Your task to perform on an android device: change notifications settings Image 0: 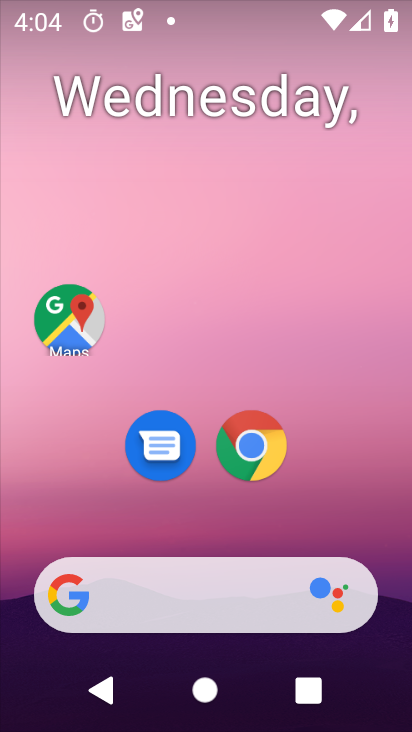
Step 0: drag from (240, 516) to (213, 2)
Your task to perform on an android device: change notifications settings Image 1: 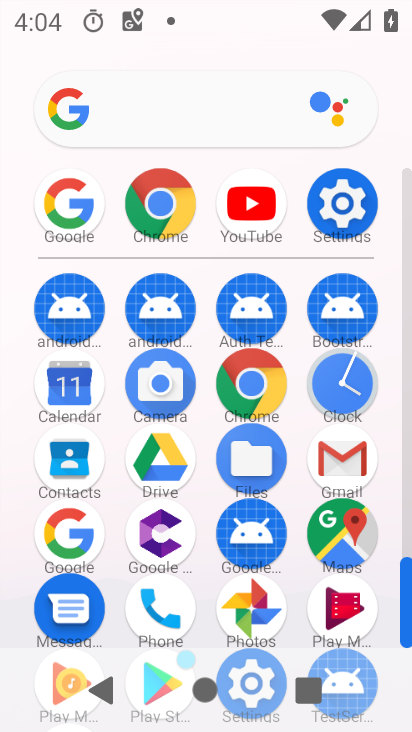
Step 1: click (339, 203)
Your task to perform on an android device: change notifications settings Image 2: 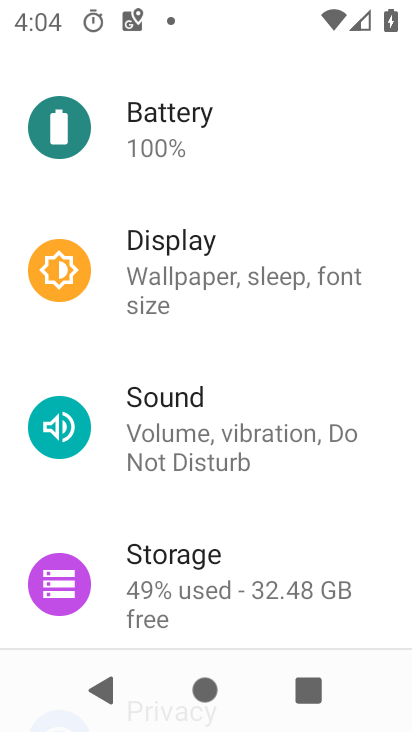
Step 2: drag from (193, 214) to (162, 627)
Your task to perform on an android device: change notifications settings Image 3: 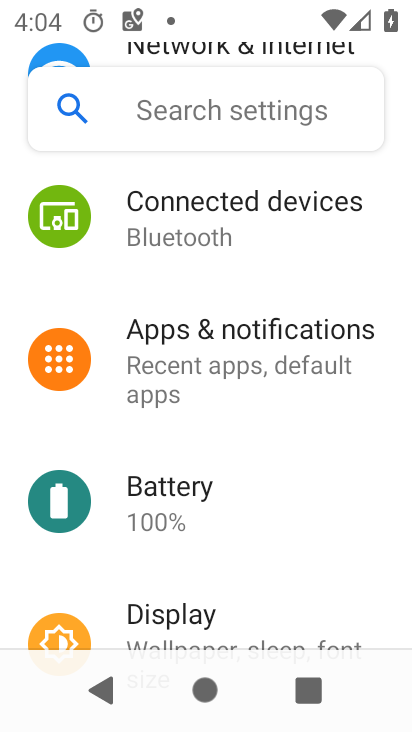
Step 3: click (210, 347)
Your task to perform on an android device: change notifications settings Image 4: 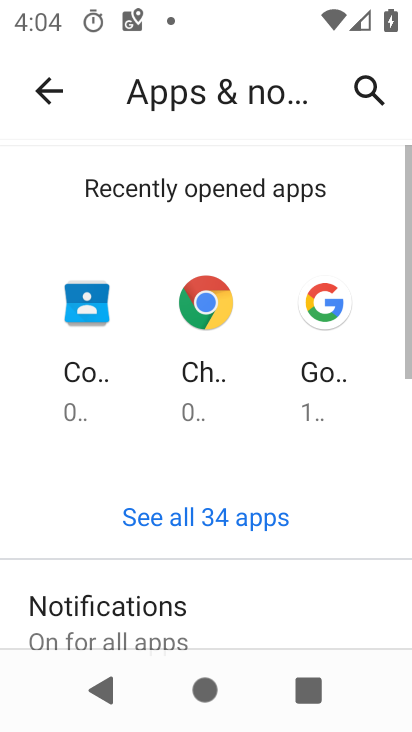
Step 4: click (152, 588)
Your task to perform on an android device: change notifications settings Image 5: 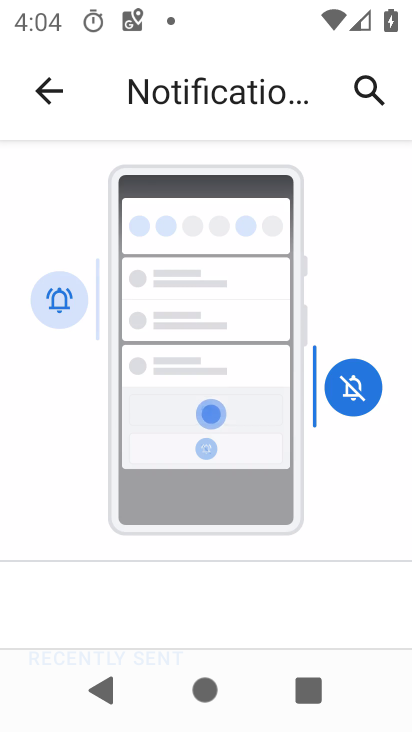
Step 5: drag from (242, 563) to (280, 81)
Your task to perform on an android device: change notifications settings Image 6: 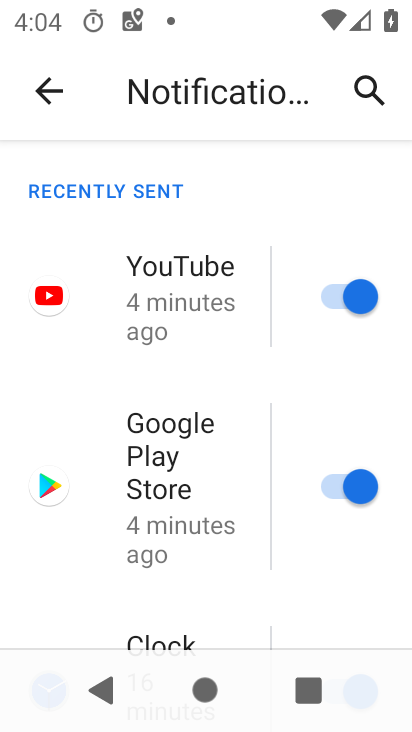
Step 6: drag from (206, 559) to (278, 9)
Your task to perform on an android device: change notifications settings Image 7: 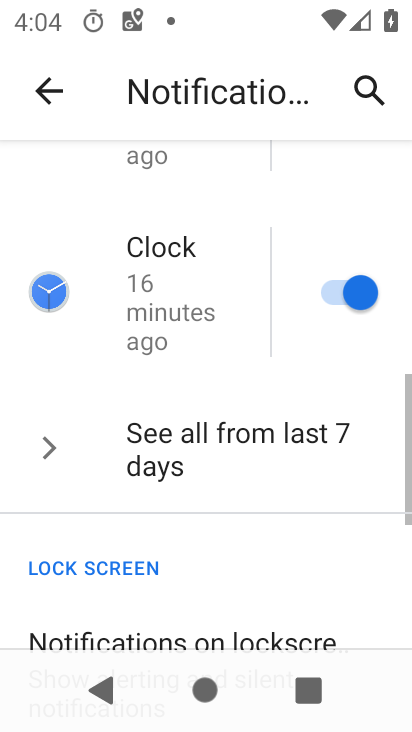
Step 7: drag from (232, 619) to (298, 48)
Your task to perform on an android device: change notifications settings Image 8: 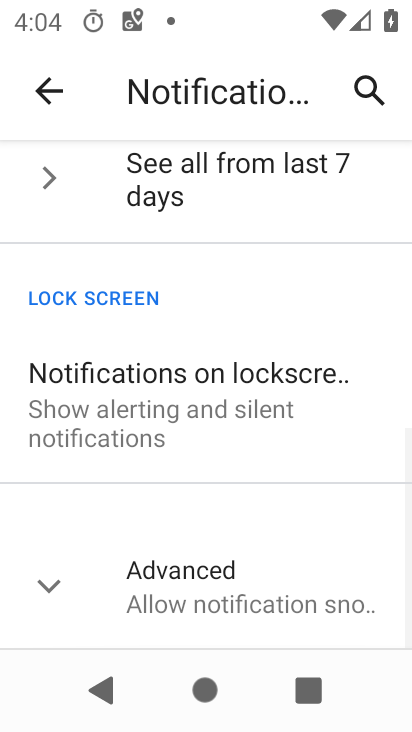
Step 8: click (252, 574)
Your task to perform on an android device: change notifications settings Image 9: 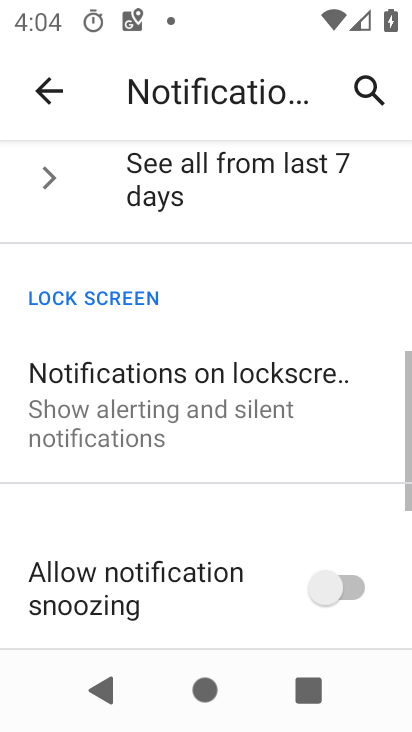
Step 9: drag from (252, 574) to (283, 190)
Your task to perform on an android device: change notifications settings Image 10: 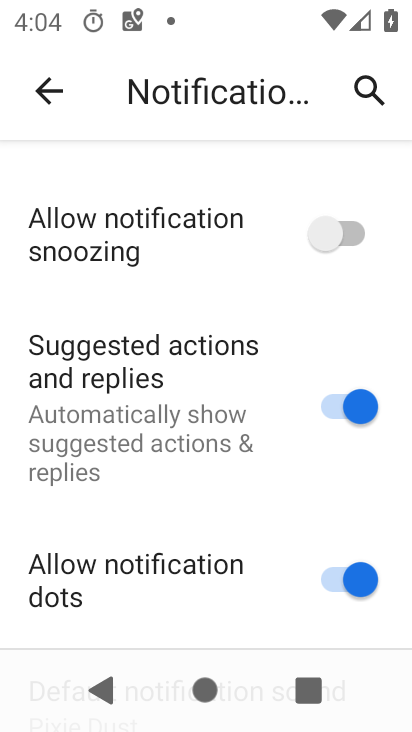
Step 10: click (358, 225)
Your task to perform on an android device: change notifications settings Image 11: 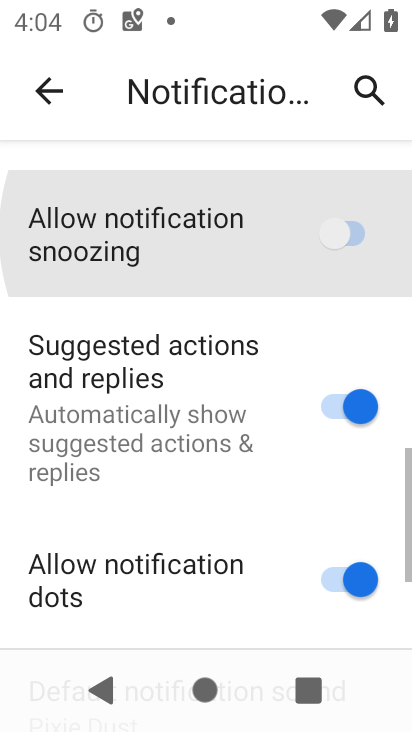
Step 11: click (354, 387)
Your task to perform on an android device: change notifications settings Image 12: 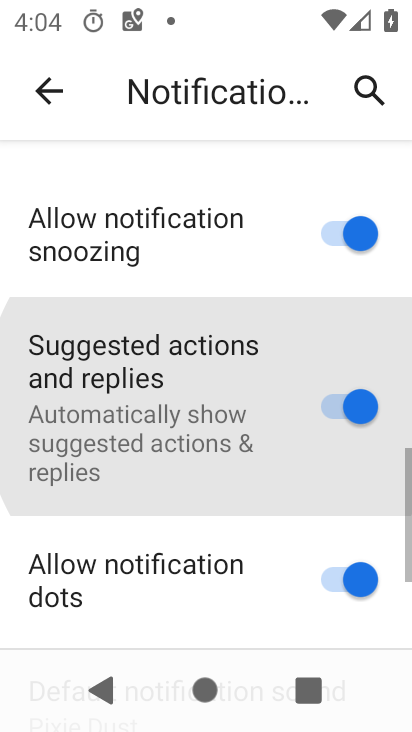
Step 12: click (330, 563)
Your task to perform on an android device: change notifications settings Image 13: 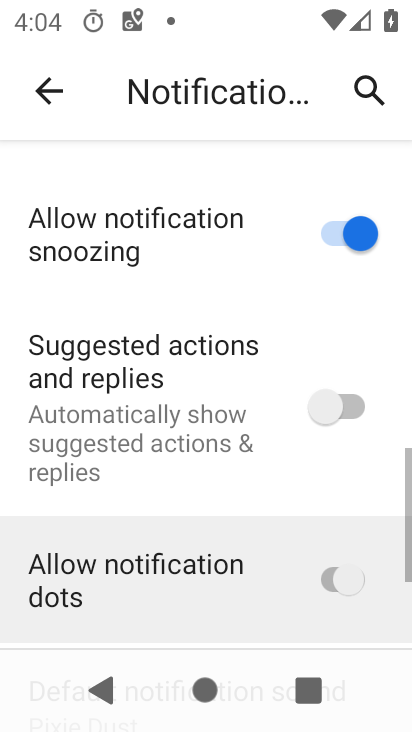
Step 13: task complete